Your task to perform on an android device: Open ESPN.com Image 0: 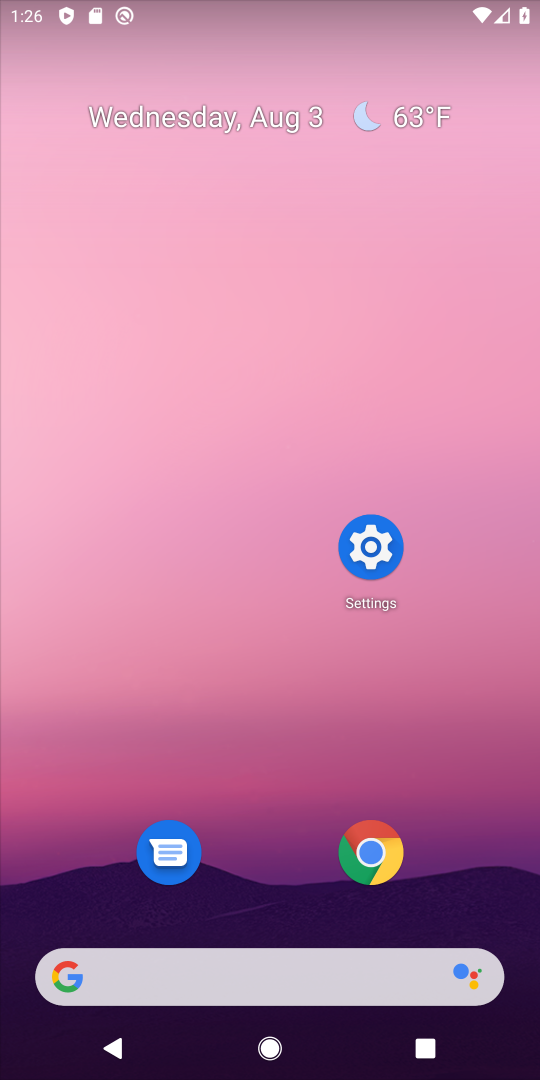
Step 0: press home button
Your task to perform on an android device: Open ESPN.com Image 1: 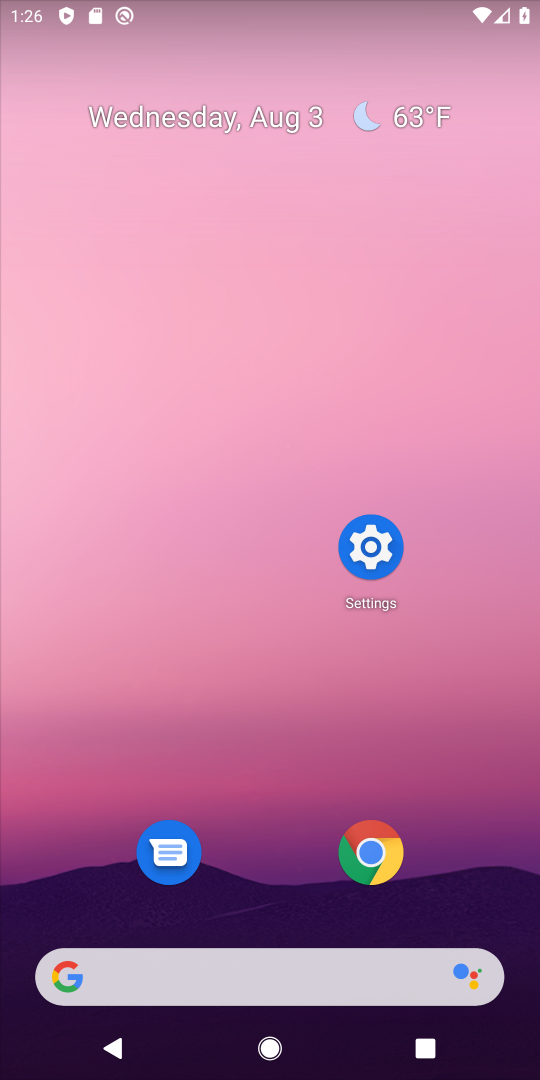
Step 1: click (364, 844)
Your task to perform on an android device: Open ESPN.com Image 2: 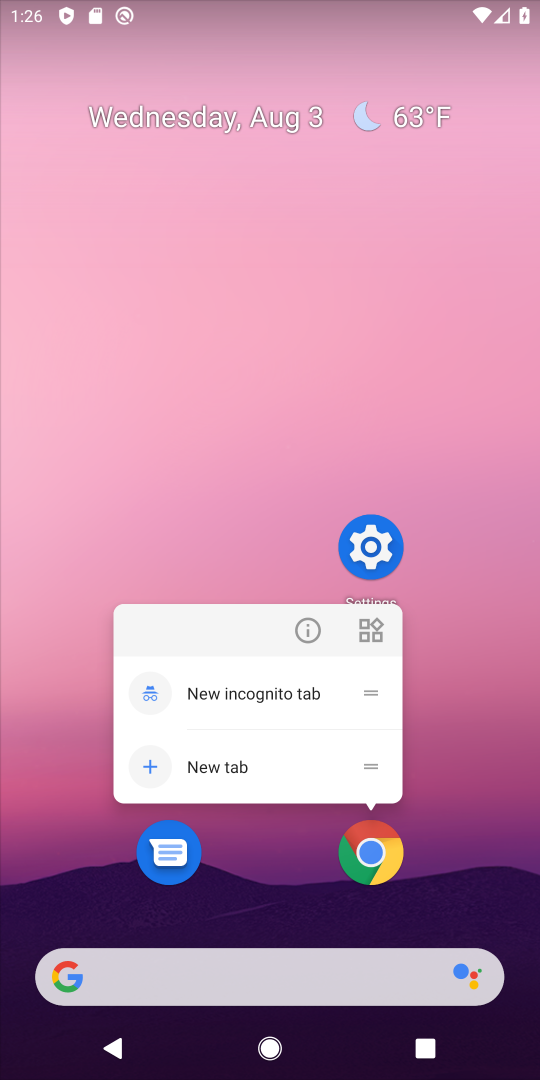
Step 2: click (355, 852)
Your task to perform on an android device: Open ESPN.com Image 3: 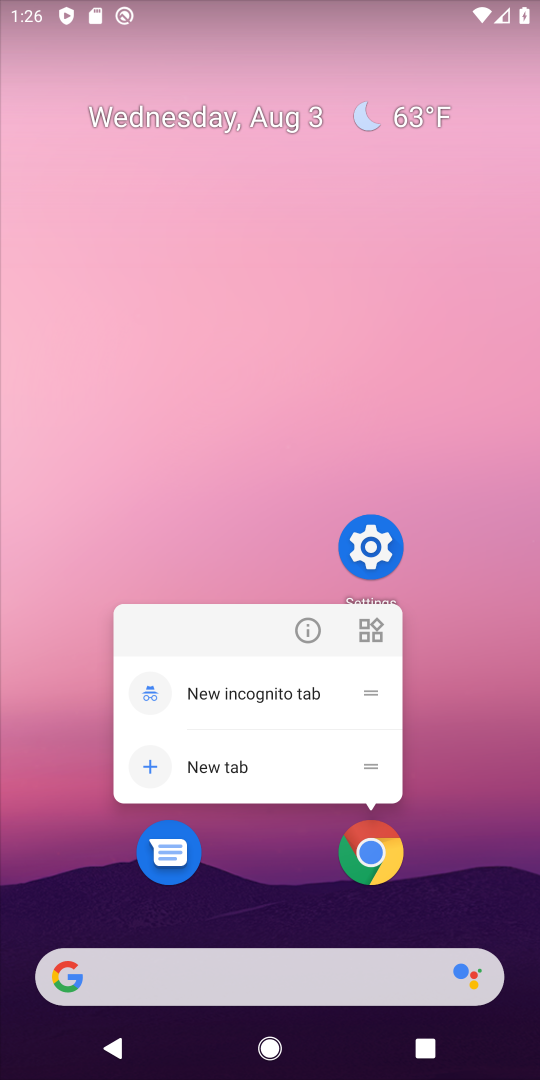
Step 3: click (355, 852)
Your task to perform on an android device: Open ESPN.com Image 4: 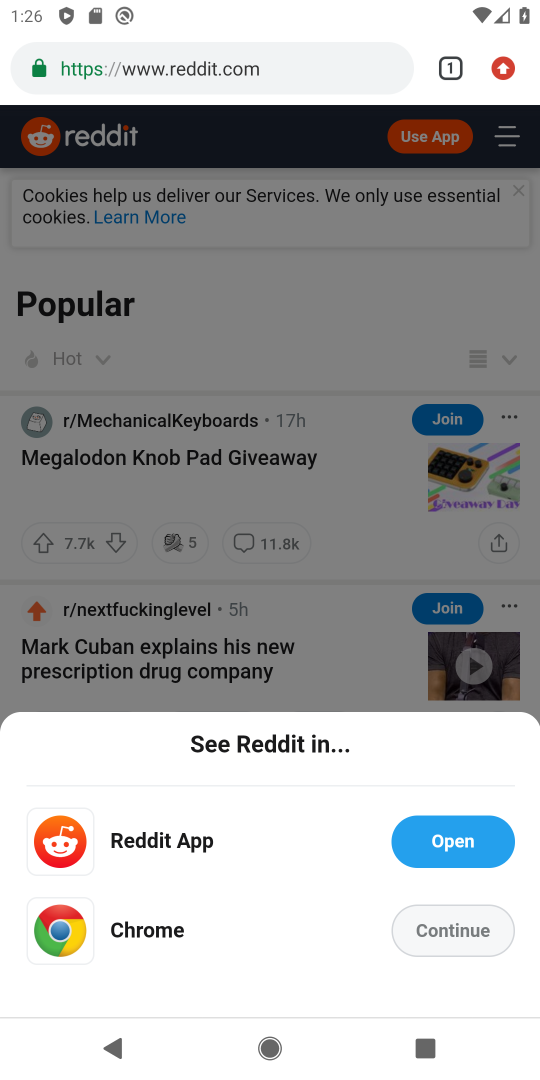
Step 4: drag from (500, 76) to (300, 219)
Your task to perform on an android device: Open ESPN.com Image 5: 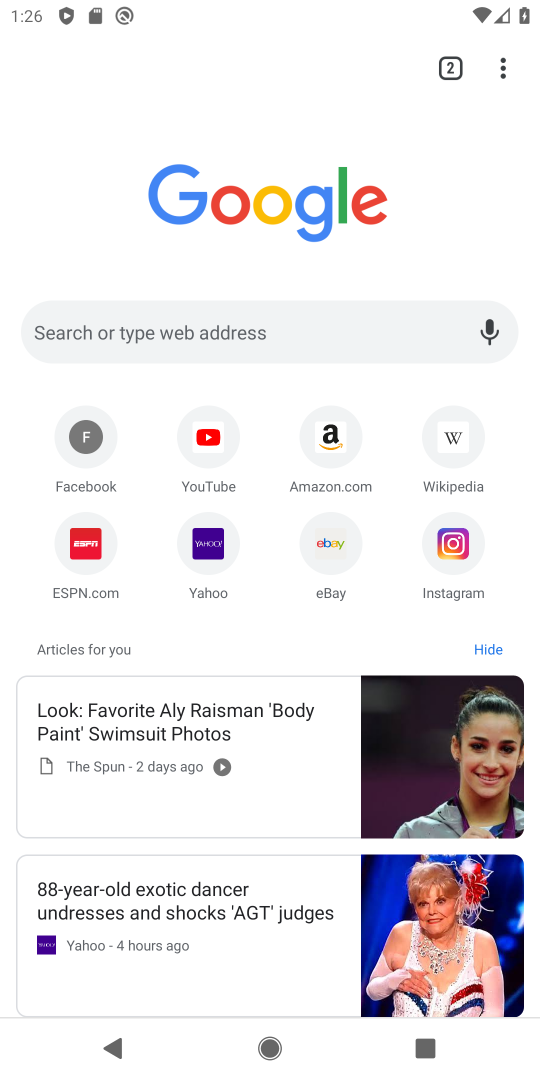
Step 5: click (73, 535)
Your task to perform on an android device: Open ESPN.com Image 6: 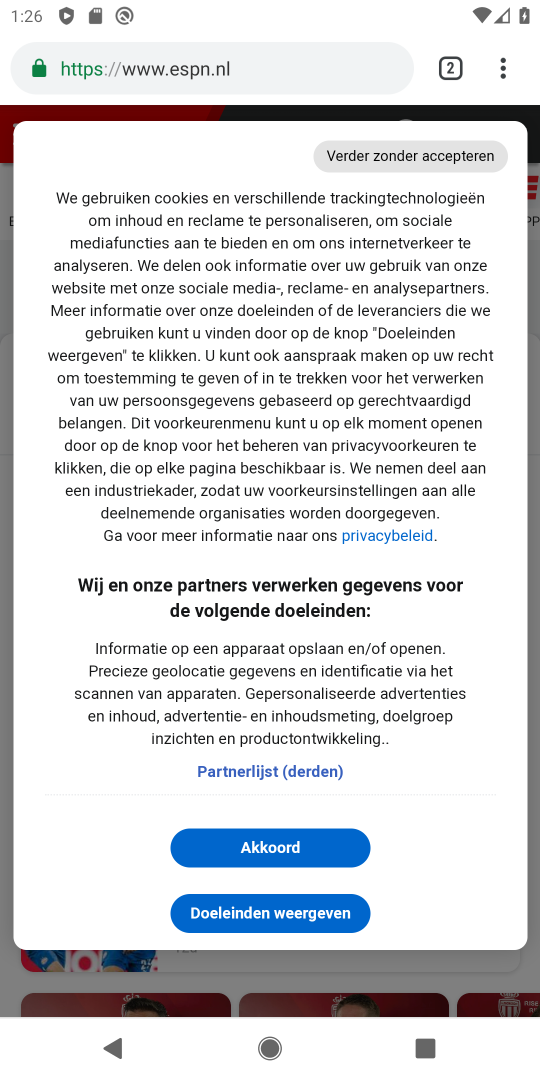
Step 6: click (326, 840)
Your task to perform on an android device: Open ESPN.com Image 7: 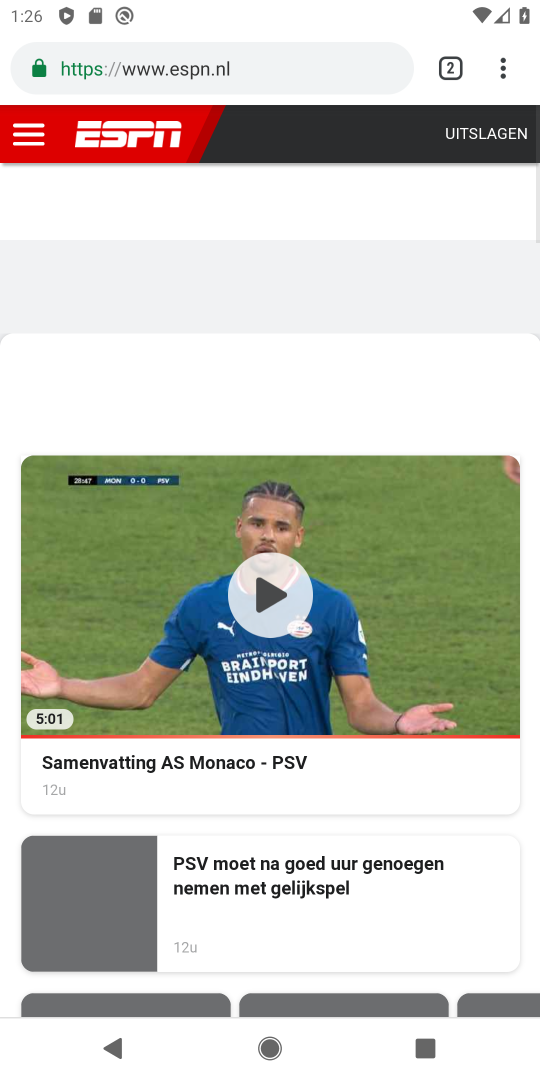
Step 7: task complete